Your task to perform on an android device: Do I have any events today? Image 0: 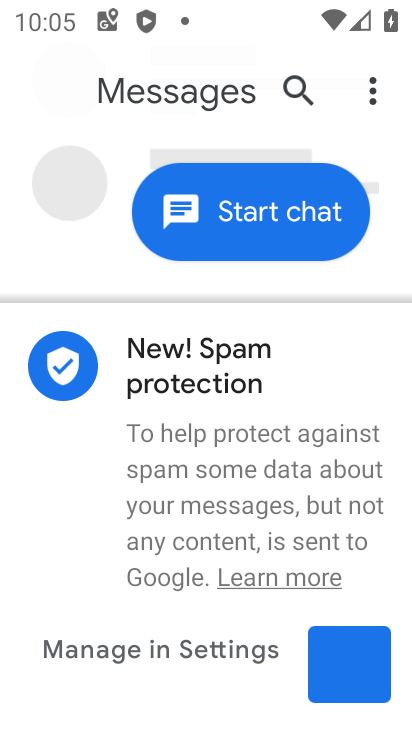
Step 0: press home button
Your task to perform on an android device: Do I have any events today? Image 1: 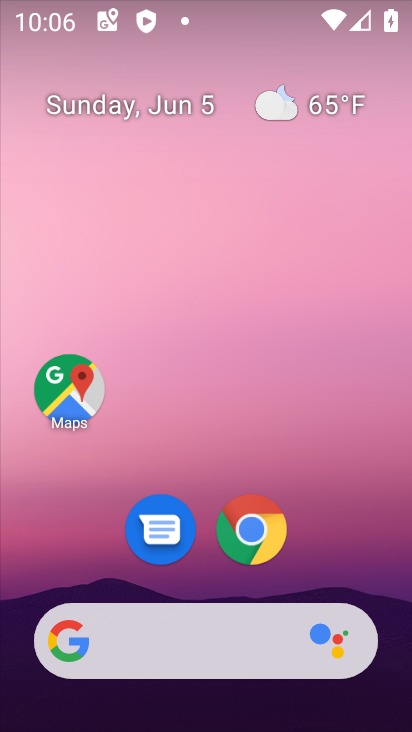
Step 1: drag from (216, 706) to (176, 18)
Your task to perform on an android device: Do I have any events today? Image 2: 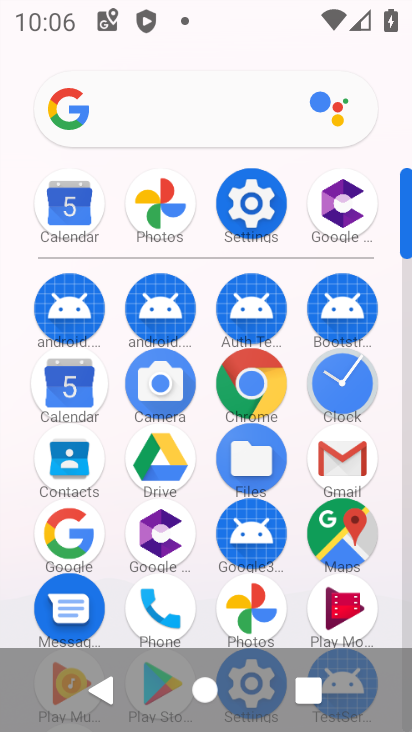
Step 2: click (59, 405)
Your task to perform on an android device: Do I have any events today? Image 3: 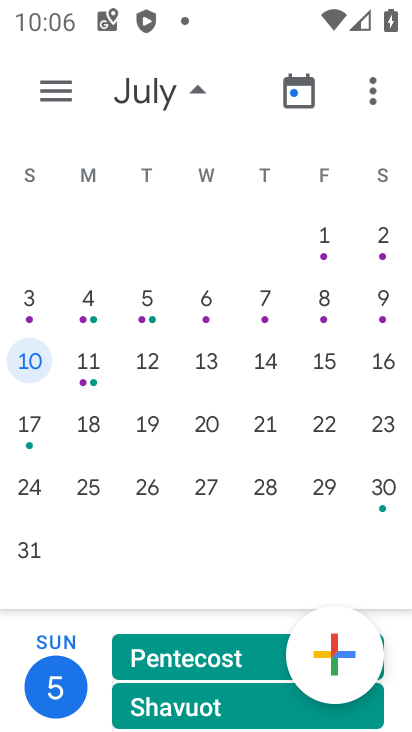
Step 3: drag from (83, 326) to (309, 338)
Your task to perform on an android device: Do I have any events today? Image 4: 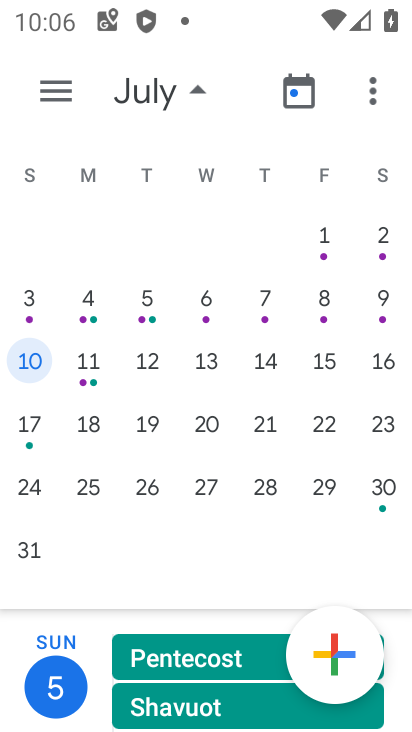
Step 4: drag from (41, 323) to (319, 404)
Your task to perform on an android device: Do I have any events today? Image 5: 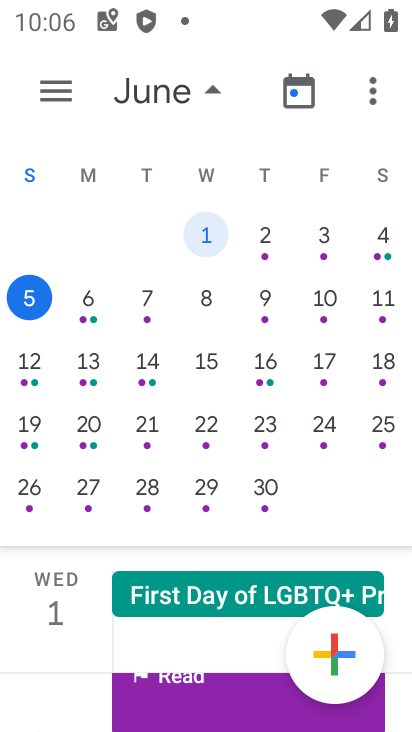
Step 5: click (44, 306)
Your task to perform on an android device: Do I have any events today? Image 6: 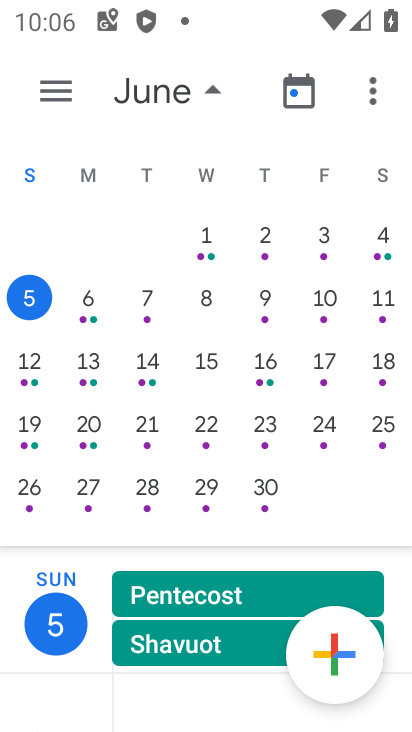
Step 6: task complete